Your task to perform on an android device: Open Youtube and go to the subscriptions tab Image 0: 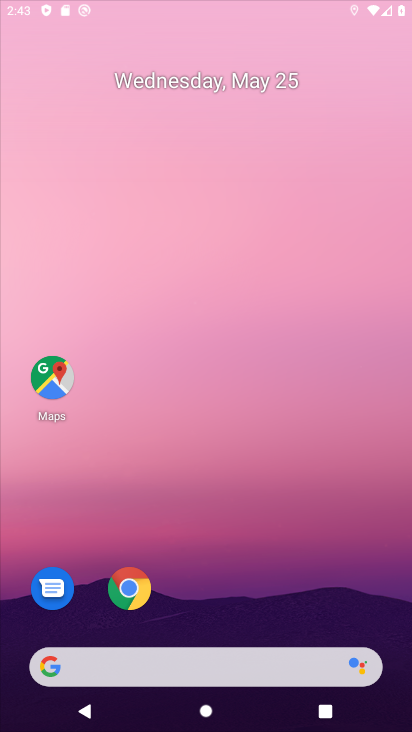
Step 0: press home button
Your task to perform on an android device: Open Youtube and go to the subscriptions tab Image 1: 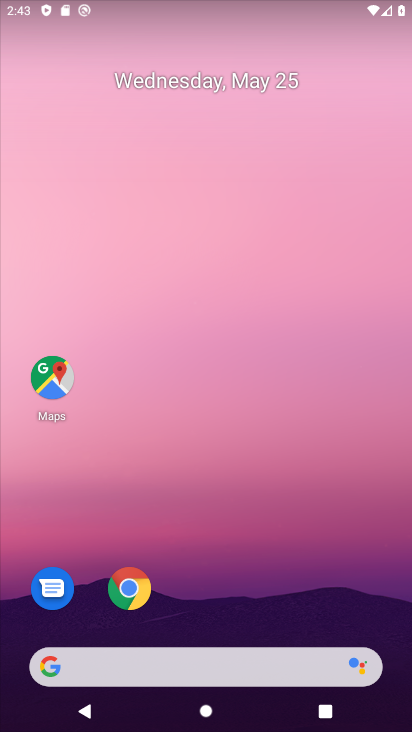
Step 1: drag from (278, 612) to (285, 23)
Your task to perform on an android device: Open Youtube and go to the subscriptions tab Image 2: 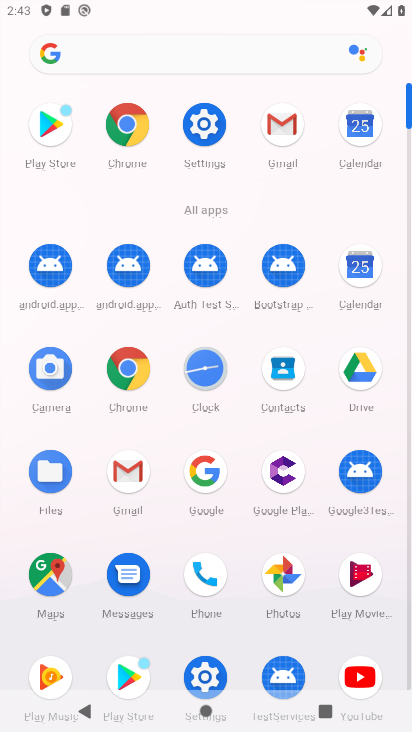
Step 2: click (353, 684)
Your task to perform on an android device: Open Youtube and go to the subscriptions tab Image 3: 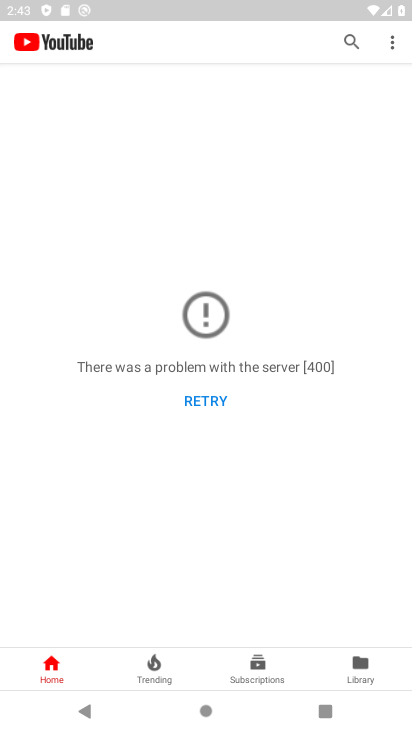
Step 3: task complete